Your task to perform on an android device: Search for Italian restaurants on Maps Image 0: 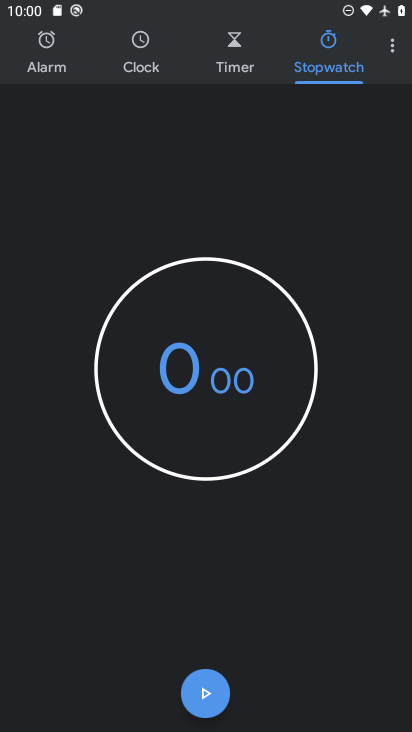
Step 0: press home button
Your task to perform on an android device: Search for Italian restaurants on Maps Image 1: 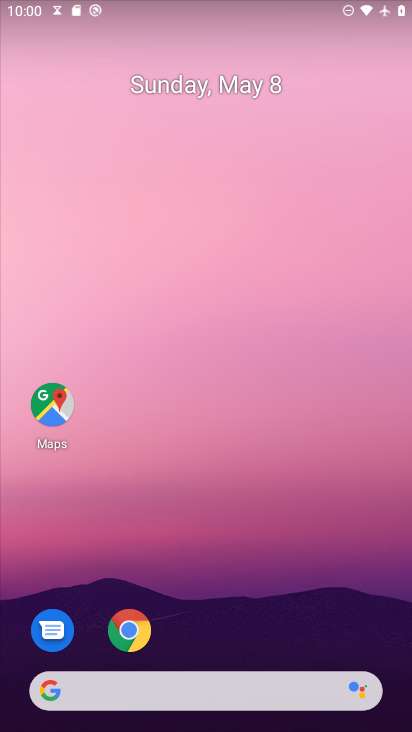
Step 1: click (43, 409)
Your task to perform on an android device: Search for Italian restaurants on Maps Image 2: 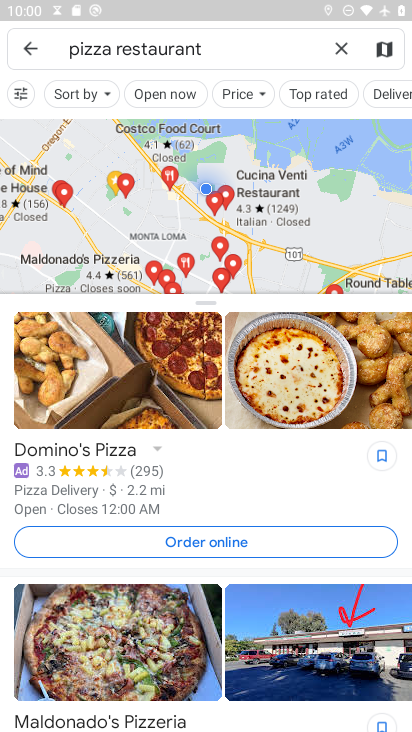
Step 2: click (340, 49)
Your task to perform on an android device: Search for Italian restaurants on Maps Image 3: 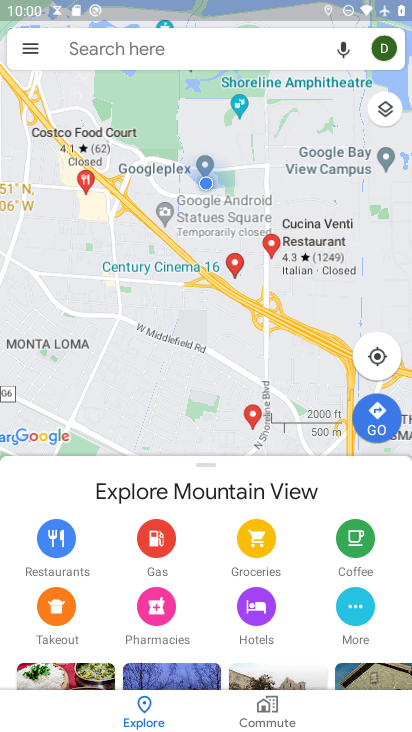
Step 3: click (189, 49)
Your task to perform on an android device: Search for Italian restaurants on Maps Image 4: 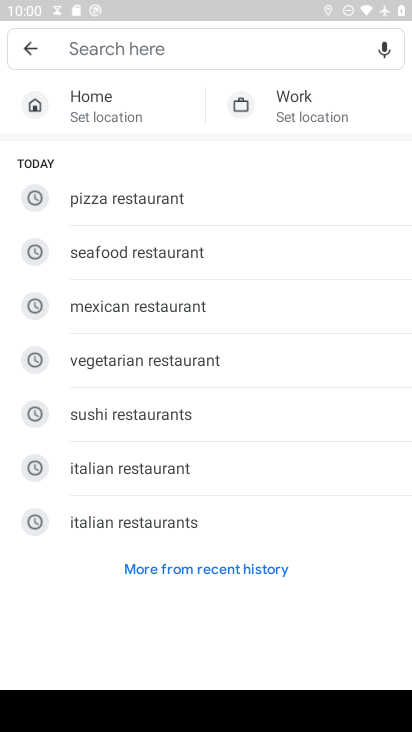
Step 4: click (136, 475)
Your task to perform on an android device: Search for Italian restaurants on Maps Image 5: 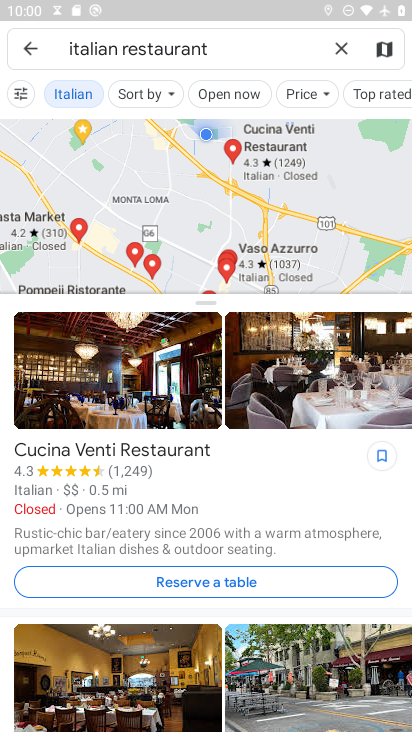
Step 5: task complete